Your task to perform on an android device: change the clock display to show seconds Image 0: 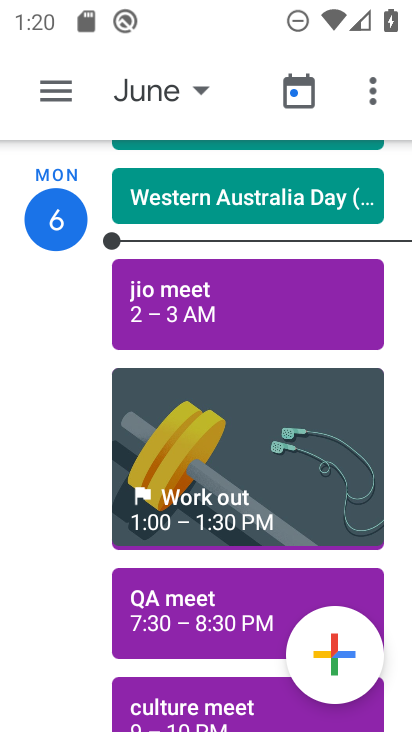
Step 0: press home button
Your task to perform on an android device: change the clock display to show seconds Image 1: 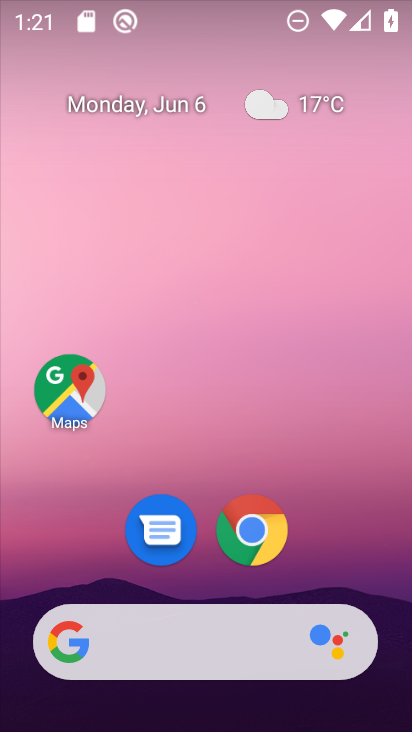
Step 1: drag from (340, 565) to (229, 81)
Your task to perform on an android device: change the clock display to show seconds Image 2: 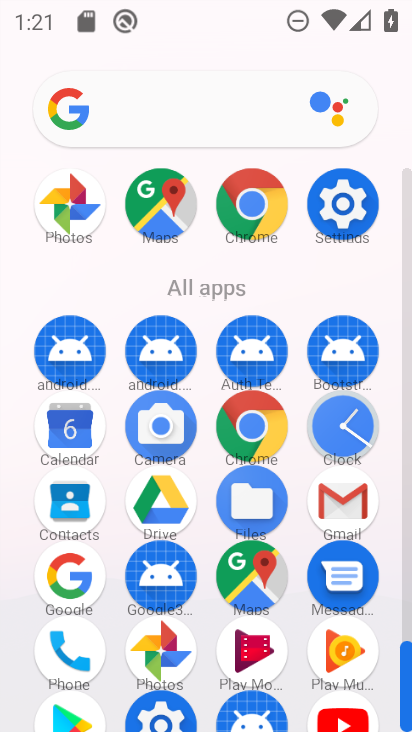
Step 2: click (343, 429)
Your task to perform on an android device: change the clock display to show seconds Image 3: 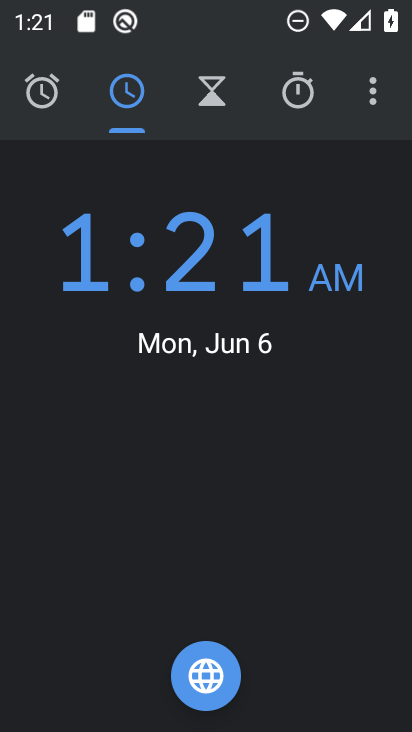
Step 3: click (373, 95)
Your task to perform on an android device: change the clock display to show seconds Image 4: 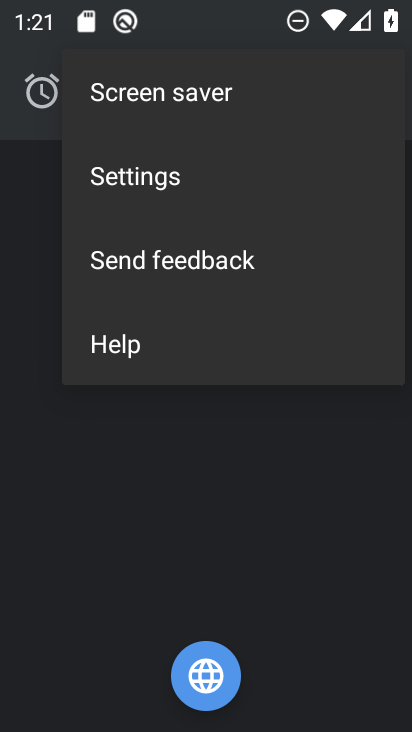
Step 4: click (255, 177)
Your task to perform on an android device: change the clock display to show seconds Image 5: 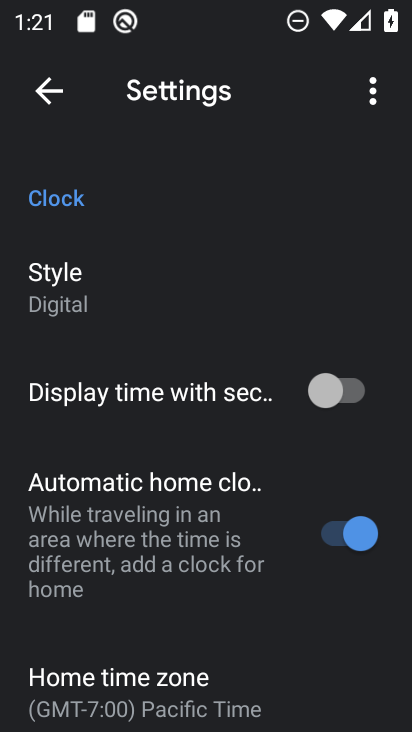
Step 5: click (342, 395)
Your task to perform on an android device: change the clock display to show seconds Image 6: 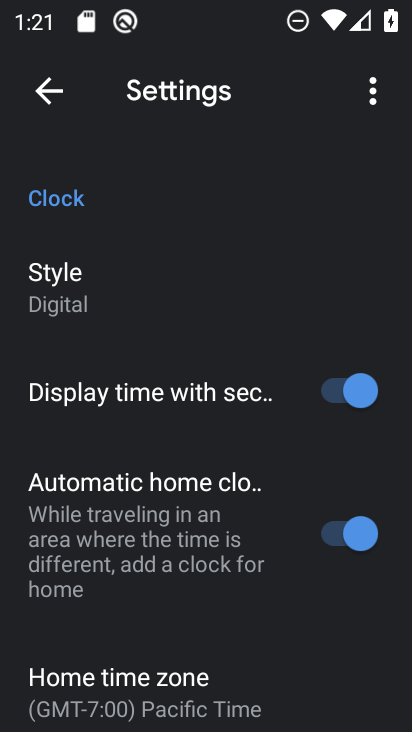
Step 6: task complete